Your task to perform on an android device: Open settings Image 0: 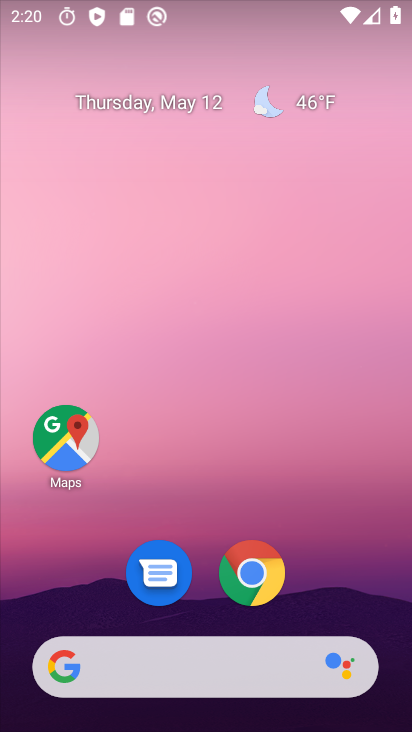
Step 0: drag from (213, 604) to (240, 140)
Your task to perform on an android device: Open settings Image 1: 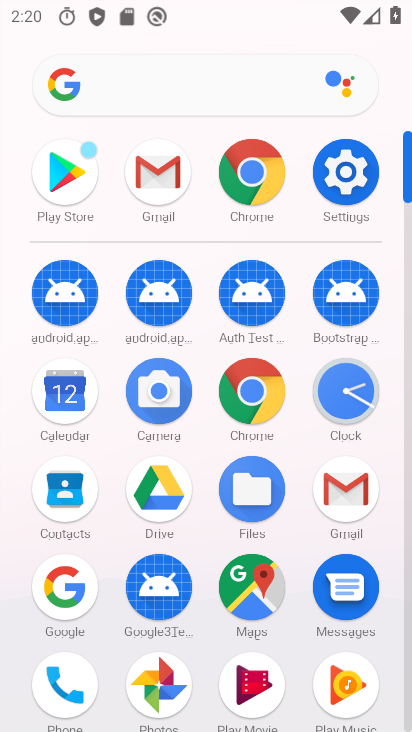
Step 1: click (344, 183)
Your task to perform on an android device: Open settings Image 2: 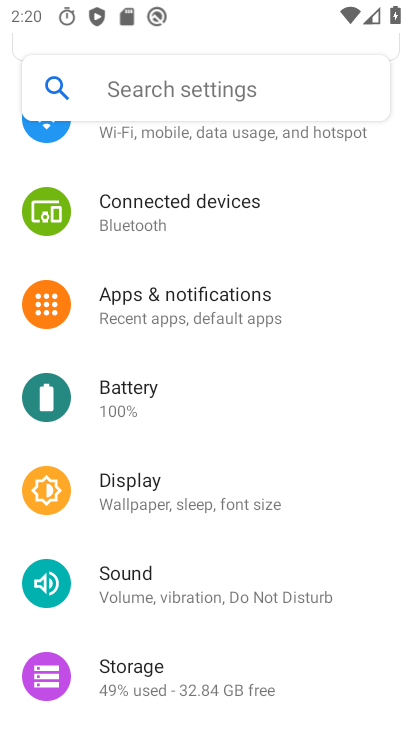
Step 2: task complete